Your task to perform on an android device: toggle show notifications on the lock screen Image 0: 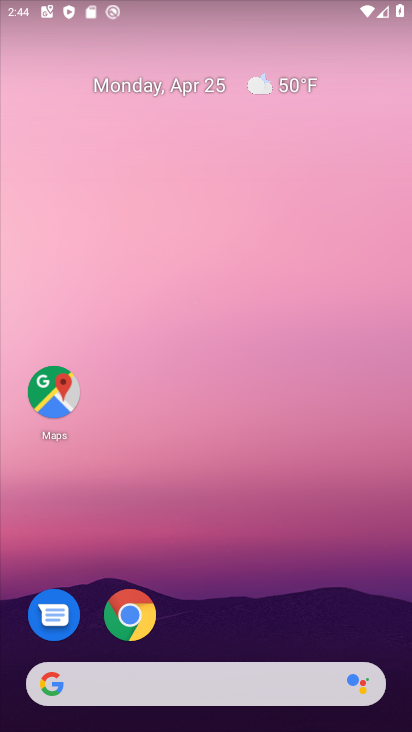
Step 0: drag from (207, 722) to (209, 164)
Your task to perform on an android device: toggle show notifications on the lock screen Image 1: 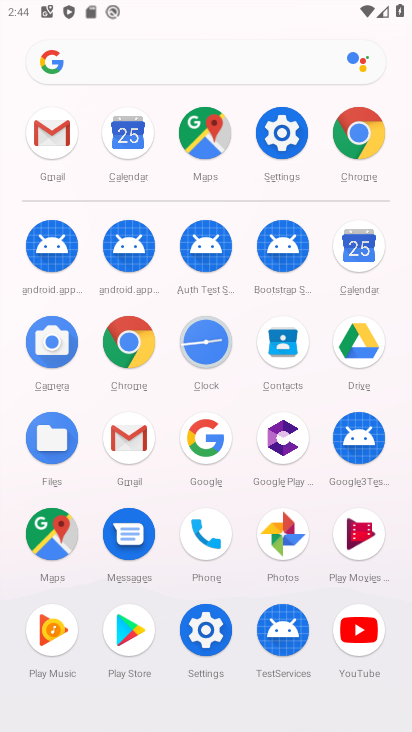
Step 1: click (285, 131)
Your task to perform on an android device: toggle show notifications on the lock screen Image 2: 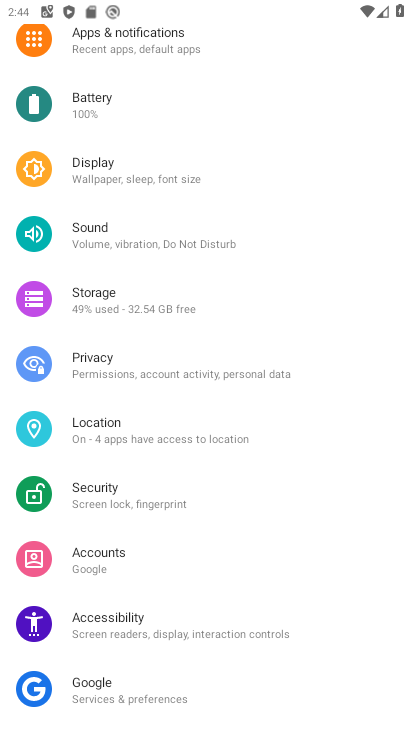
Step 2: drag from (142, 111) to (177, 464)
Your task to perform on an android device: toggle show notifications on the lock screen Image 3: 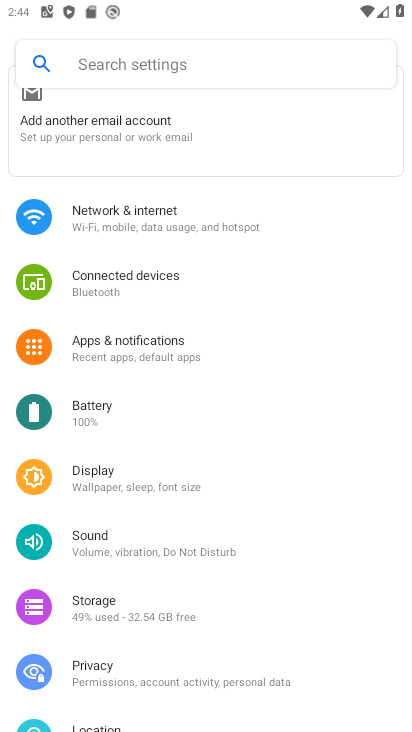
Step 3: click (123, 348)
Your task to perform on an android device: toggle show notifications on the lock screen Image 4: 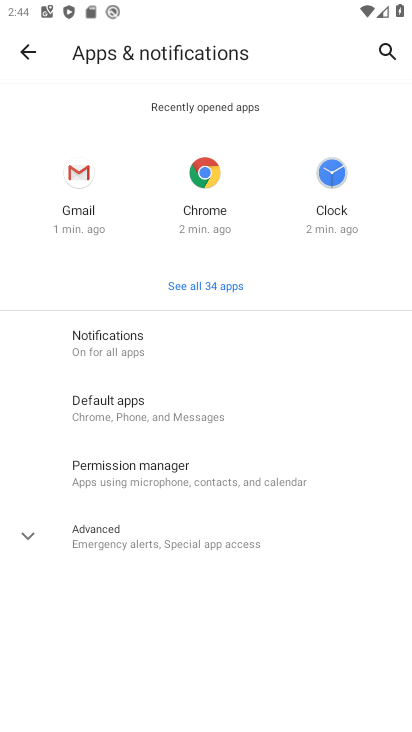
Step 4: click (112, 342)
Your task to perform on an android device: toggle show notifications on the lock screen Image 5: 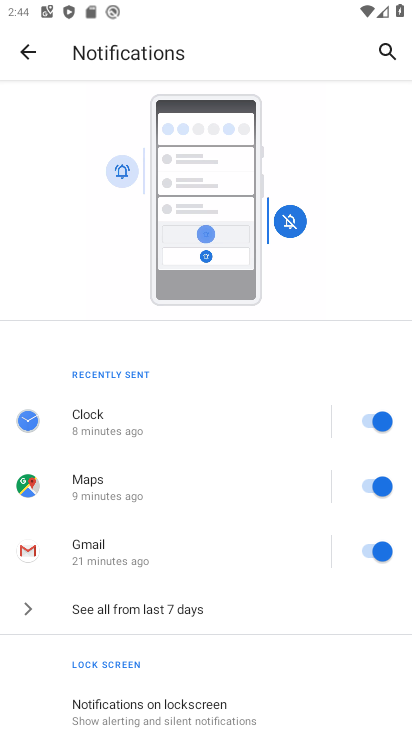
Step 5: drag from (250, 706) to (242, 413)
Your task to perform on an android device: toggle show notifications on the lock screen Image 6: 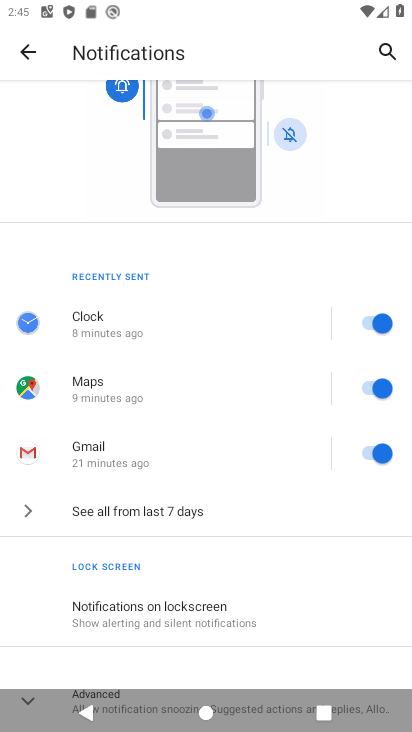
Step 6: click (139, 611)
Your task to perform on an android device: toggle show notifications on the lock screen Image 7: 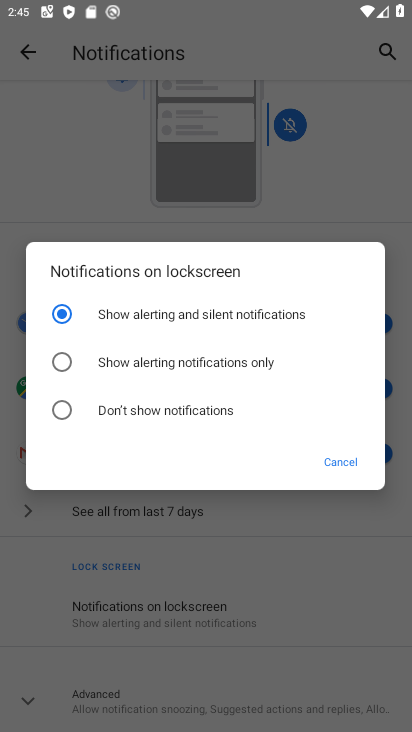
Step 7: click (60, 359)
Your task to perform on an android device: toggle show notifications on the lock screen Image 8: 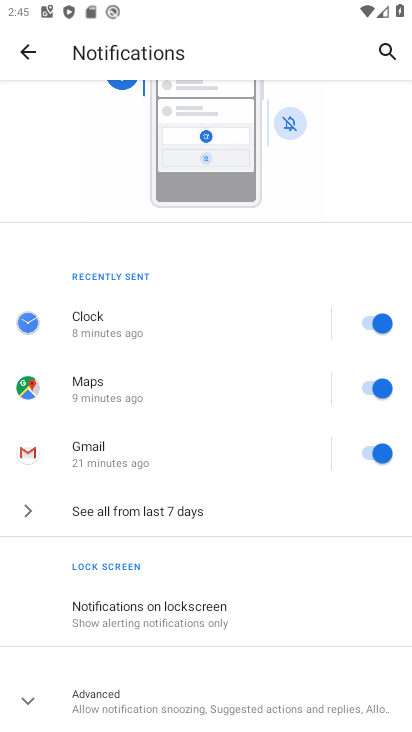
Step 8: task complete